Your task to perform on an android device: toggle wifi Image 0: 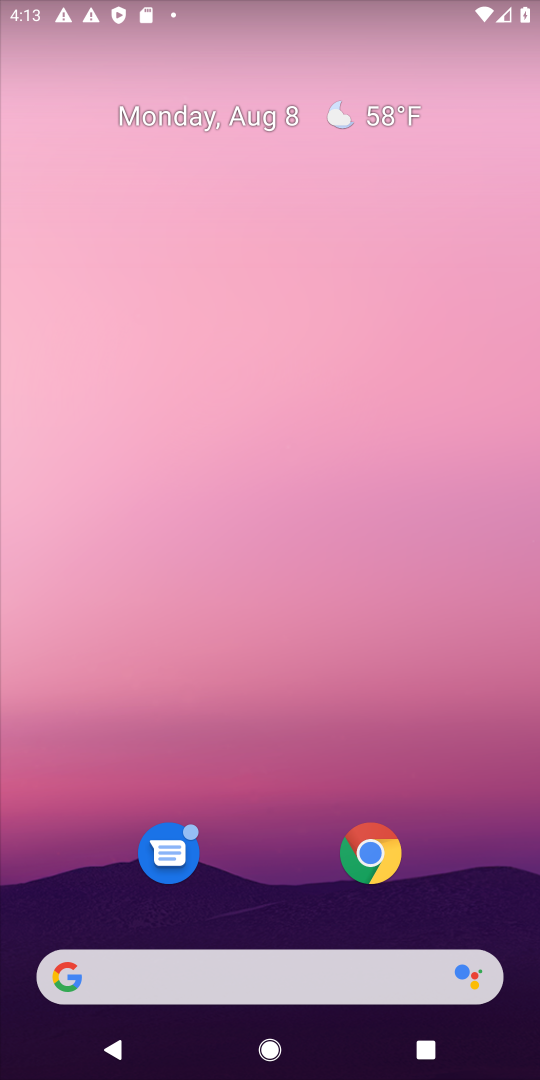
Step 0: drag from (175, 15) to (189, 914)
Your task to perform on an android device: toggle wifi Image 1: 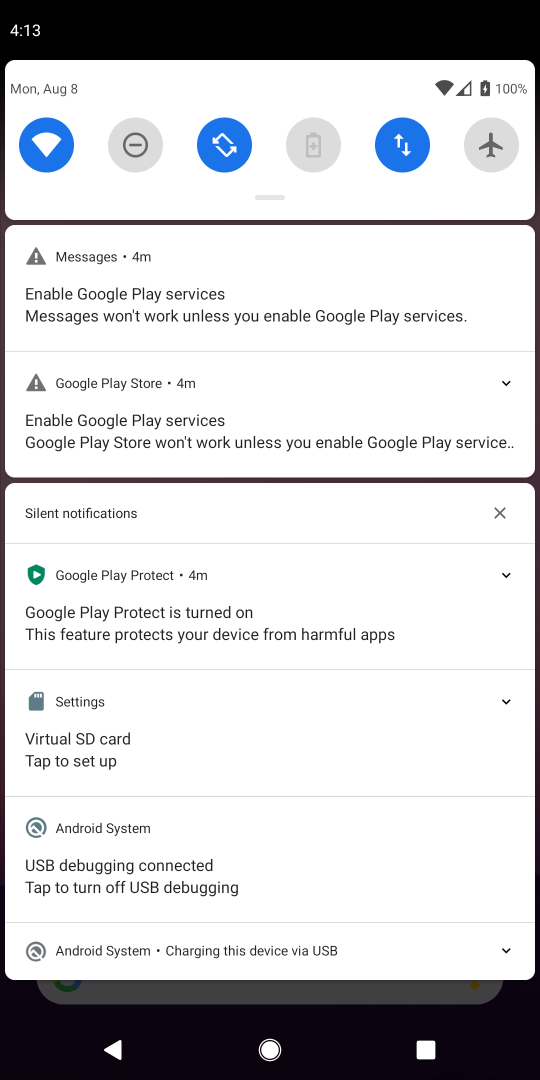
Step 1: click (49, 128)
Your task to perform on an android device: toggle wifi Image 2: 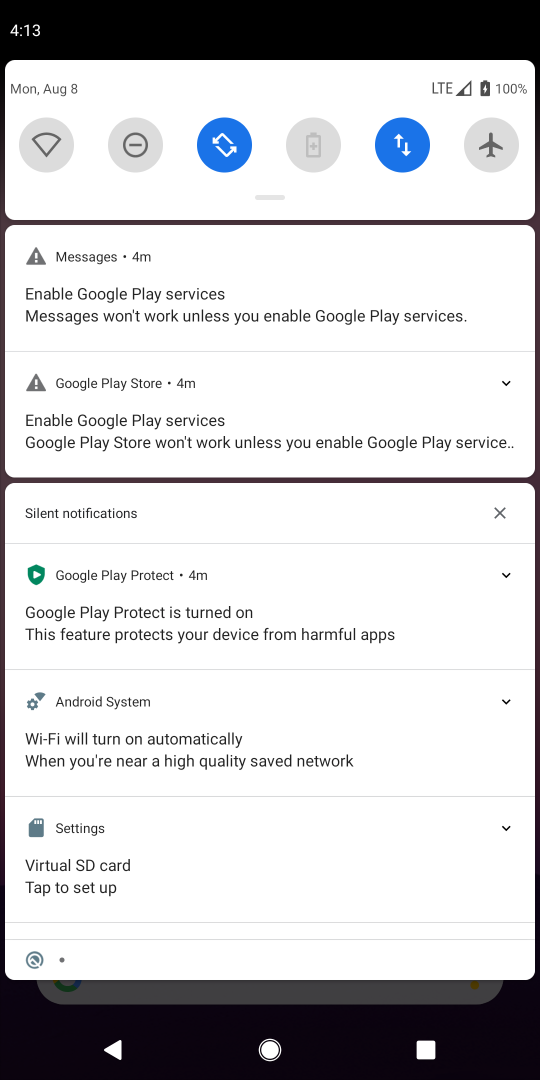
Step 2: task complete